Your task to perform on an android device: snooze an email in the gmail app Image 0: 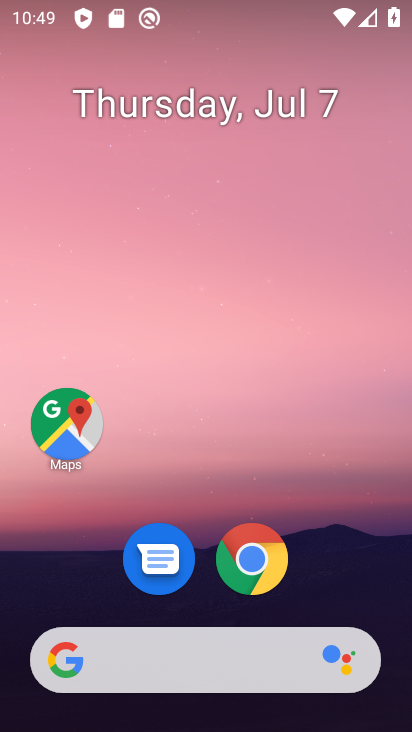
Step 0: drag from (371, 574) to (378, 85)
Your task to perform on an android device: snooze an email in the gmail app Image 1: 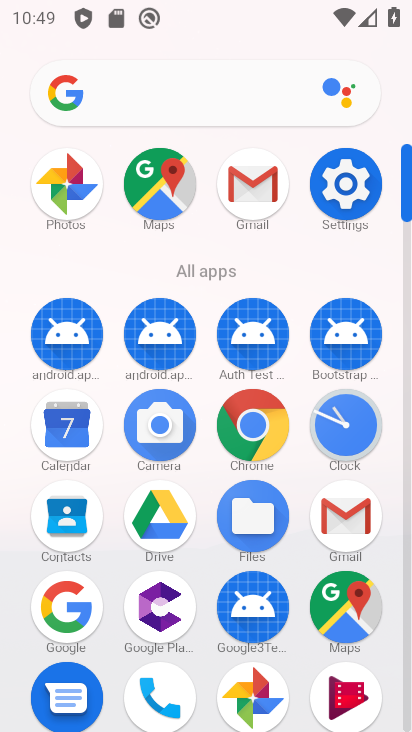
Step 1: click (366, 523)
Your task to perform on an android device: snooze an email in the gmail app Image 2: 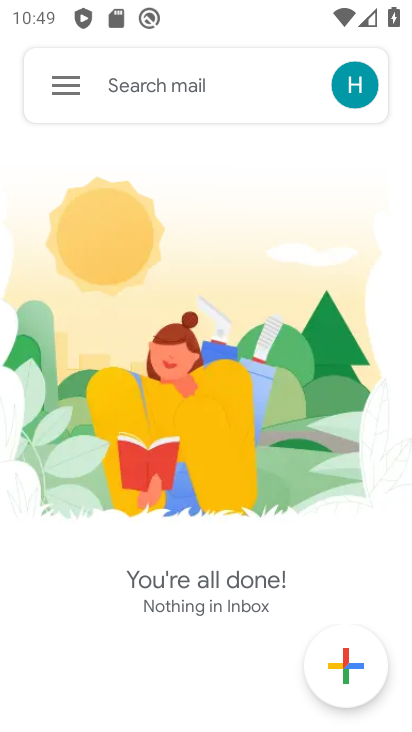
Step 2: click (61, 71)
Your task to perform on an android device: snooze an email in the gmail app Image 3: 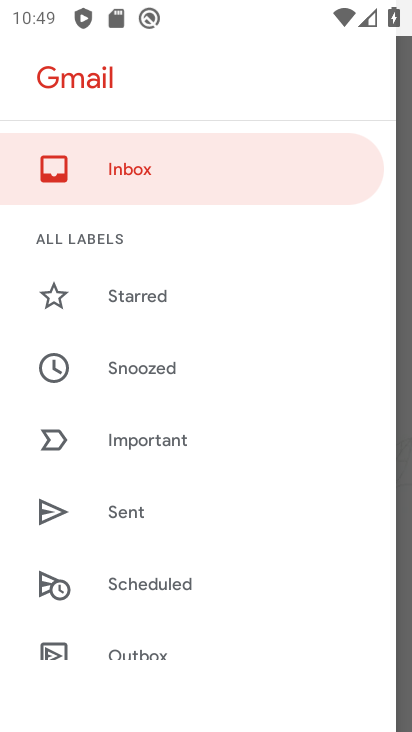
Step 3: drag from (299, 423) to (333, 224)
Your task to perform on an android device: snooze an email in the gmail app Image 4: 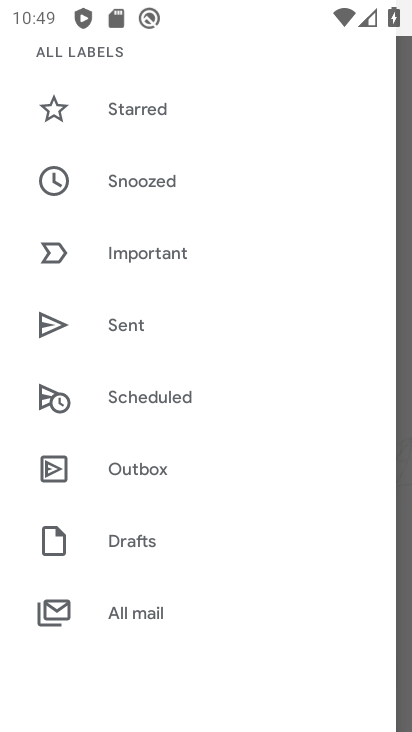
Step 4: drag from (318, 447) to (318, 282)
Your task to perform on an android device: snooze an email in the gmail app Image 5: 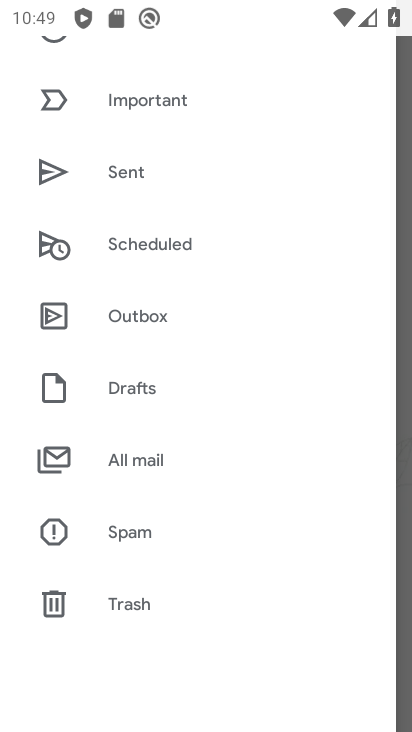
Step 5: drag from (329, 495) to (329, 325)
Your task to perform on an android device: snooze an email in the gmail app Image 6: 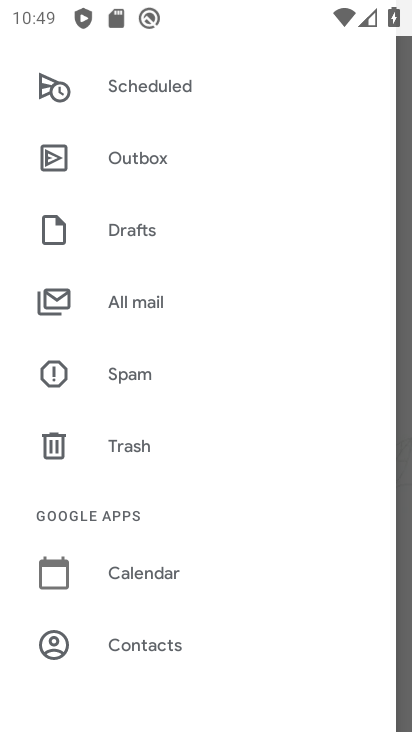
Step 6: drag from (318, 486) to (333, 295)
Your task to perform on an android device: snooze an email in the gmail app Image 7: 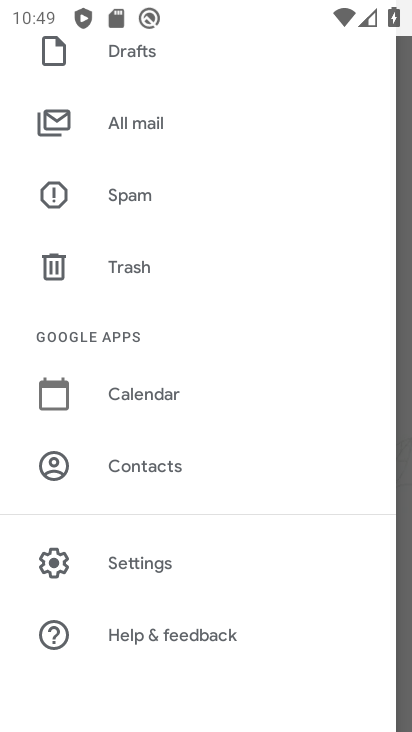
Step 7: drag from (332, 181) to (342, 392)
Your task to perform on an android device: snooze an email in the gmail app Image 8: 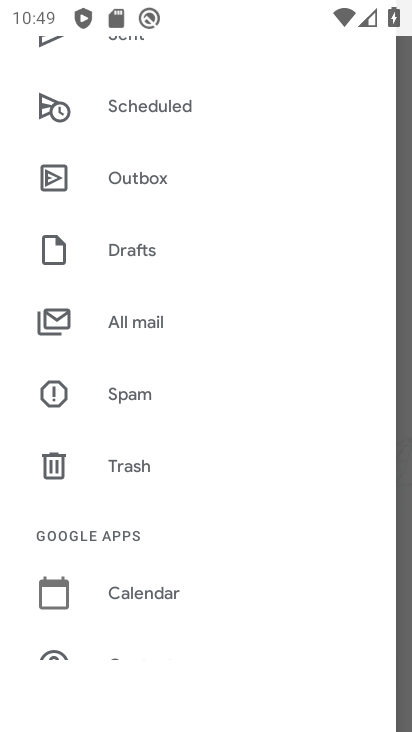
Step 8: drag from (320, 277) to (319, 405)
Your task to perform on an android device: snooze an email in the gmail app Image 9: 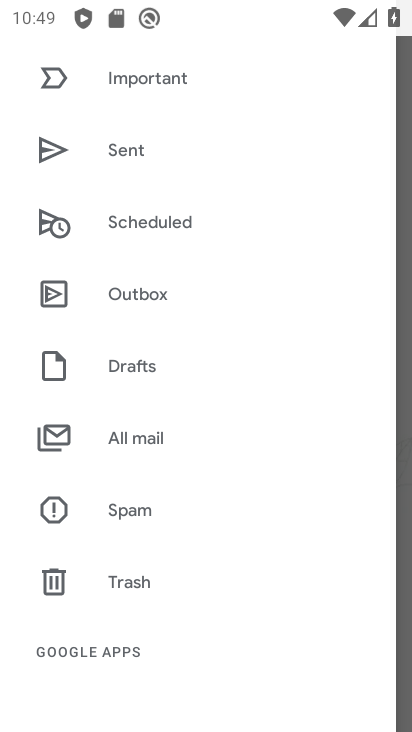
Step 9: drag from (304, 198) to (313, 436)
Your task to perform on an android device: snooze an email in the gmail app Image 10: 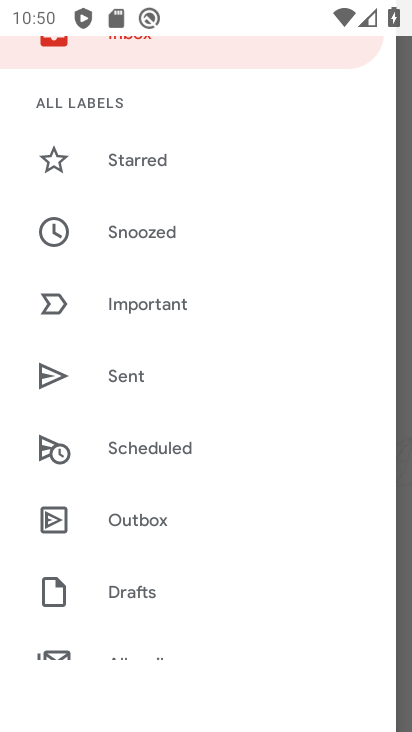
Step 10: click (215, 215)
Your task to perform on an android device: snooze an email in the gmail app Image 11: 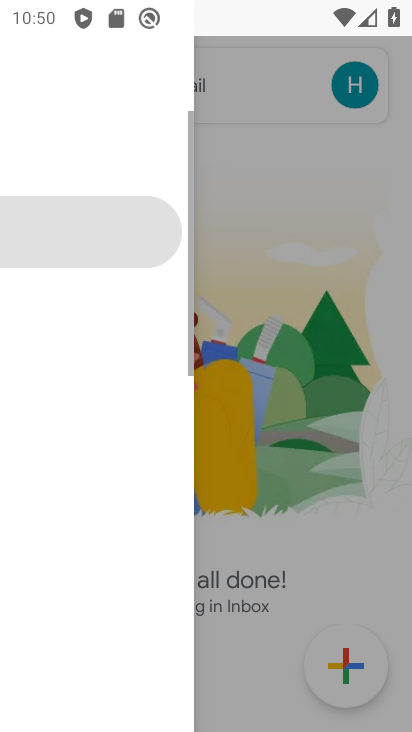
Step 11: click (155, 211)
Your task to perform on an android device: snooze an email in the gmail app Image 12: 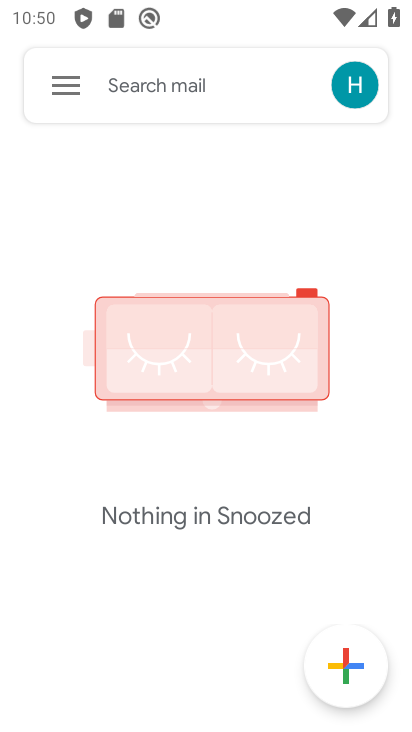
Step 12: task complete